Your task to perform on an android device: add a contact in the contacts app Image 0: 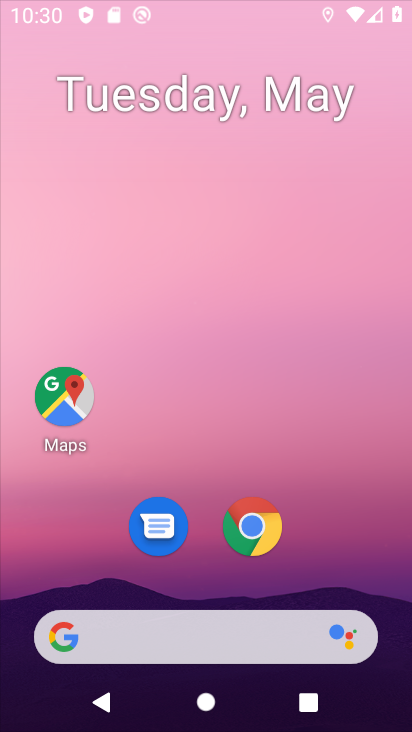
Step 0: click (258, 27)
Your task to perform on an android device: add a contact in the contacts app Image 1: 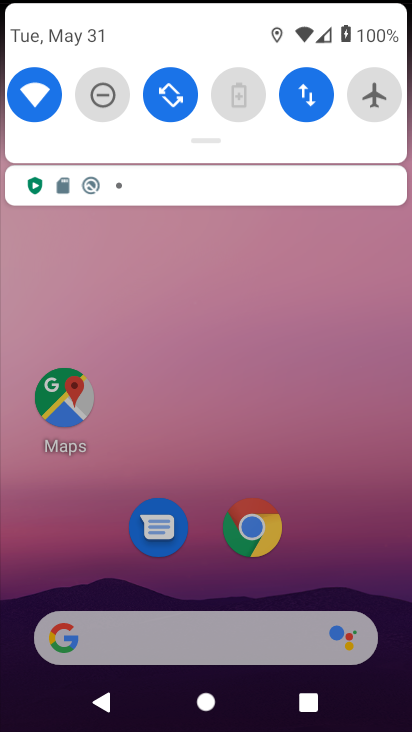
Step 1: drag from (226, 533) to (210, 44)
Your task to perform on an android device: add a contact in the contacts app Image 2: 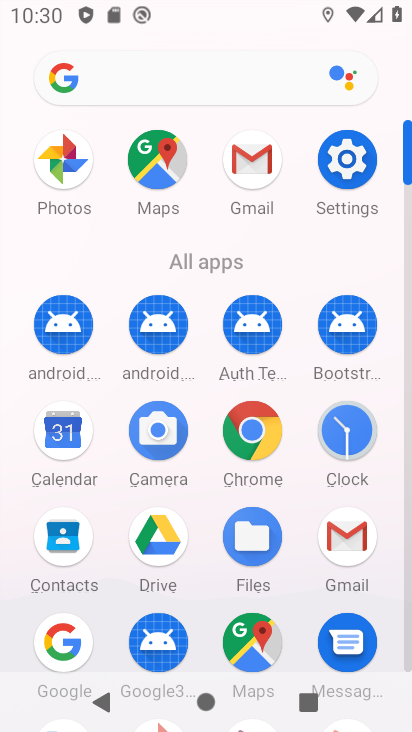
Step 2: click (63, 533)
Your task to perform on an android device: add a contact in the contacts app Image 3: 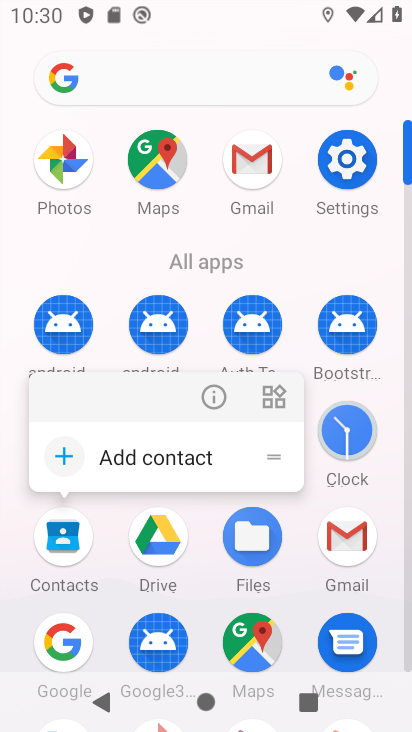
Step 3: click (206, 398)
Your task to perform on an android device: add a contact in the contacts app Image 4: 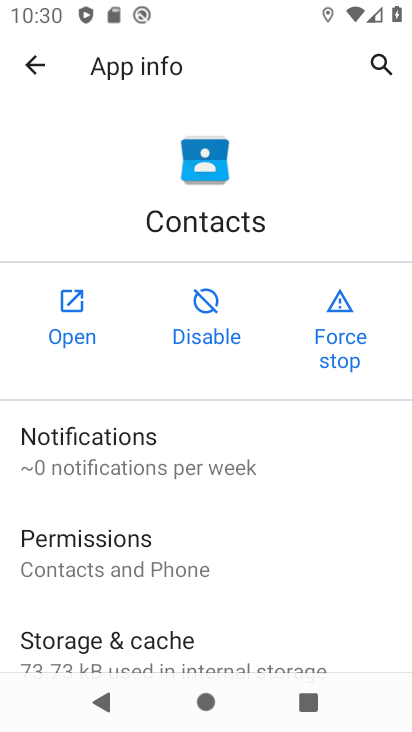
Step 4: click (77, 317)
Your task to perform on an android device: add a contact in the contacts app Image 5: 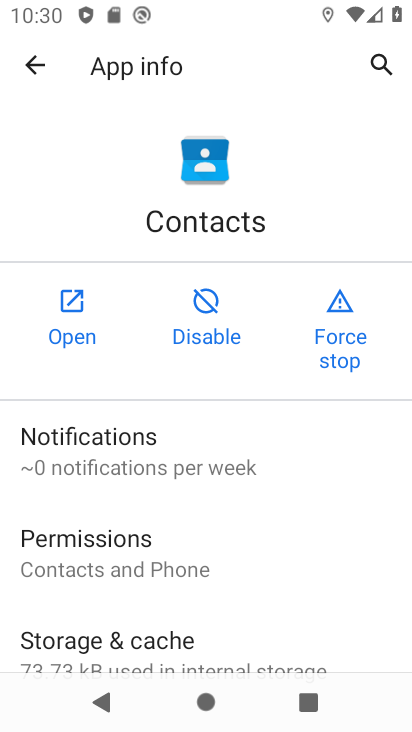
Step 5: click (78, 317)
Your task to perform on an android device: add a contact in the contacts app Image 6: 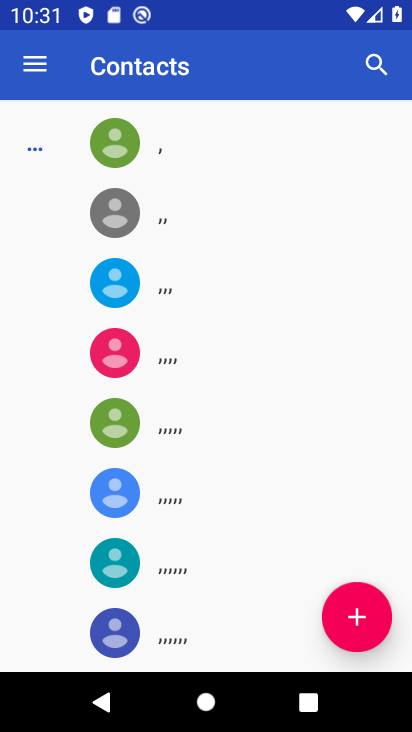
Step 6: drag from (204, 599) to (240, 418)
Your task to perform on an android device: add a contact in the contacts app Image 7: 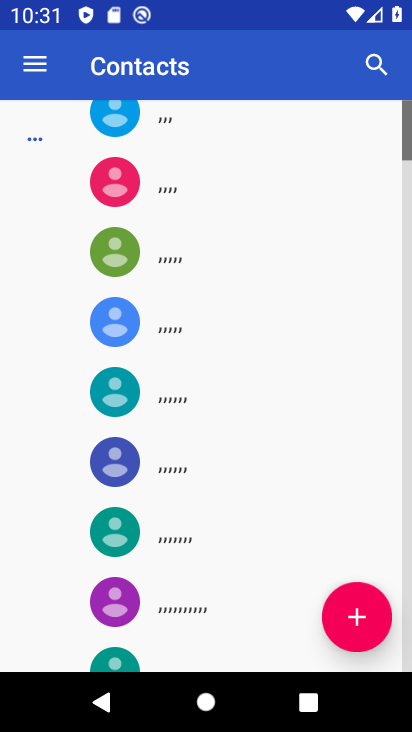
Step 7: click (357, 627)
Your task to perform on an android device: add a contact in the contacts app Image 8: 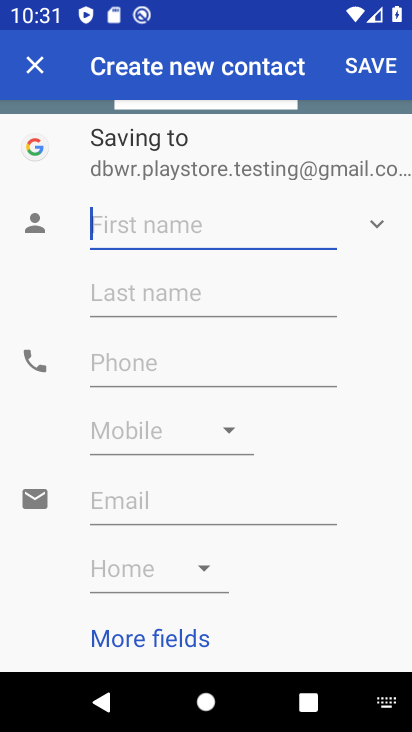
Step 8: type "app"
Your task to perform on an android device: add a contact in the contacts app Image 9: 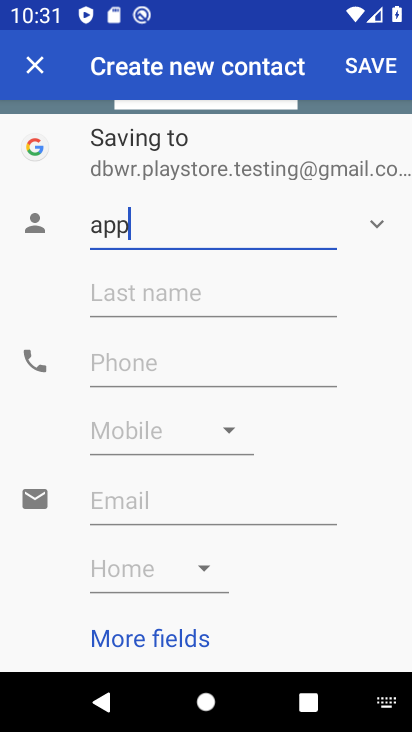
Step 9: type ""
Your task to perform on an android device: add a contact in the contacts app Image 10: 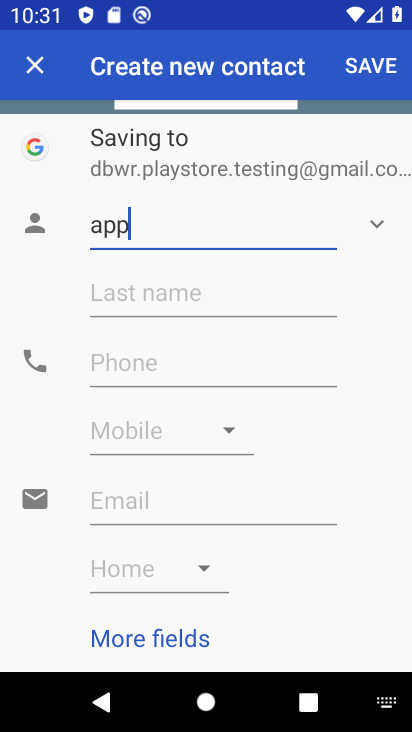
Step 10: drag from (280, 507) to (314, 168)
Your task to perform on an android device: add a contact in the contacts app Image 11: 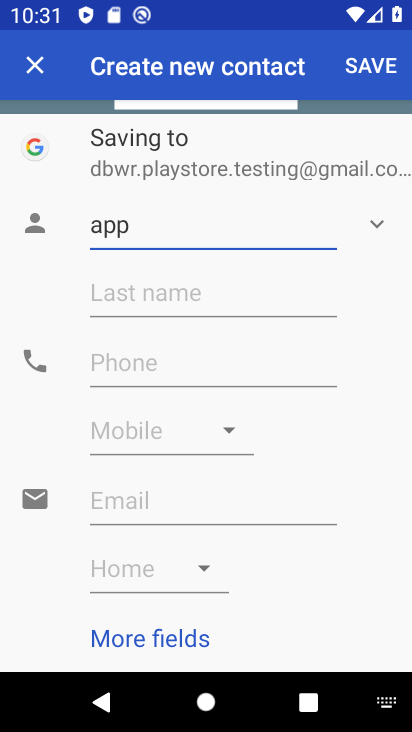
Step 11: click (372, 68)
Your task to perform on an android device: add a contact in the contacts app Image 12: 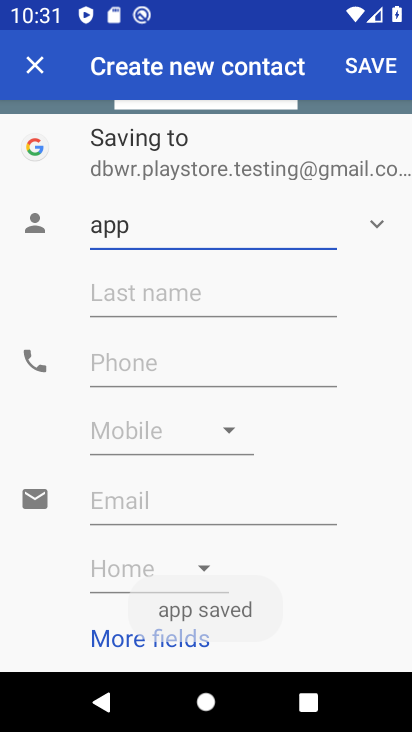
Step 12: task complete